Your task to perform on an android device: Open sound settings Image 0: 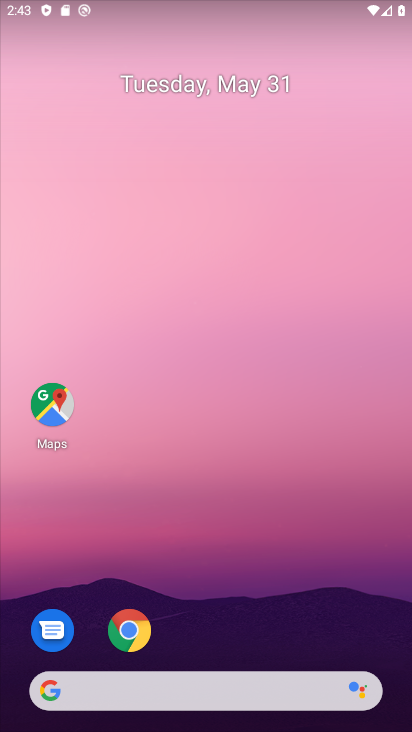
Step 0: drag from (238, 481) to (250, 182)
Your task to perform on an android device: Open sound settings Image 1: 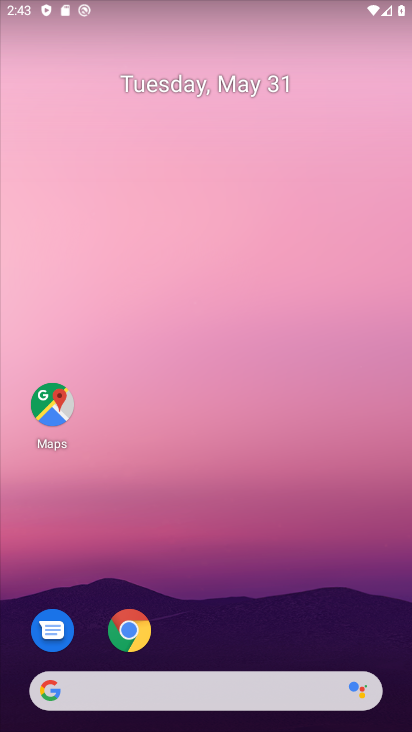
Step 1: drag from (223, 562) to (301, 33)
Your task to perform on an android device: Open sound settings Image 2: 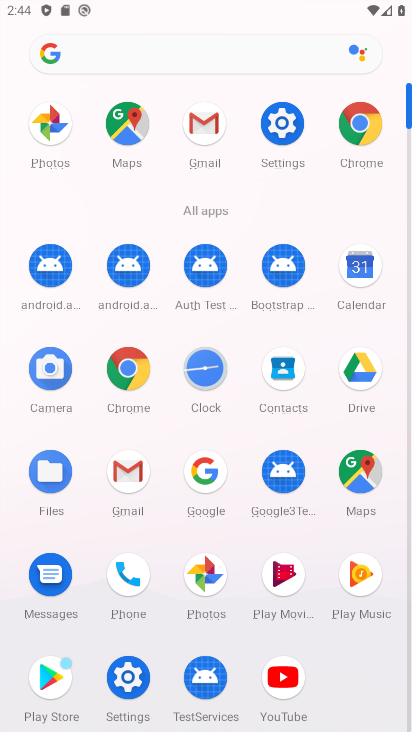
Step 2: click (287, 123)
Your task to perform on an android device: Open sound settings Image 3: 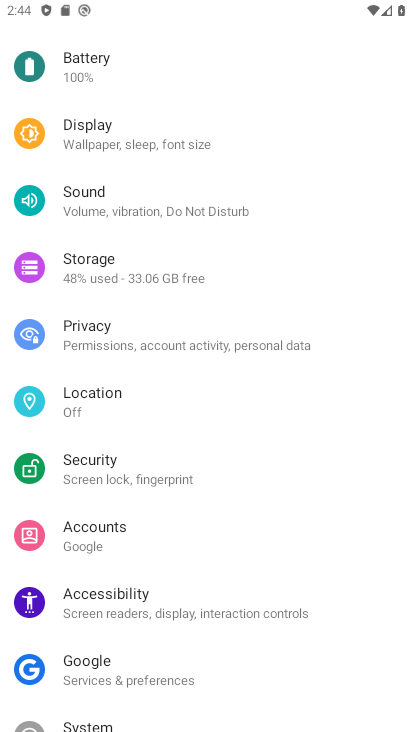
Step 3: click (100, 196)
Your task to perform on an android device: Open sound settings Image 4: 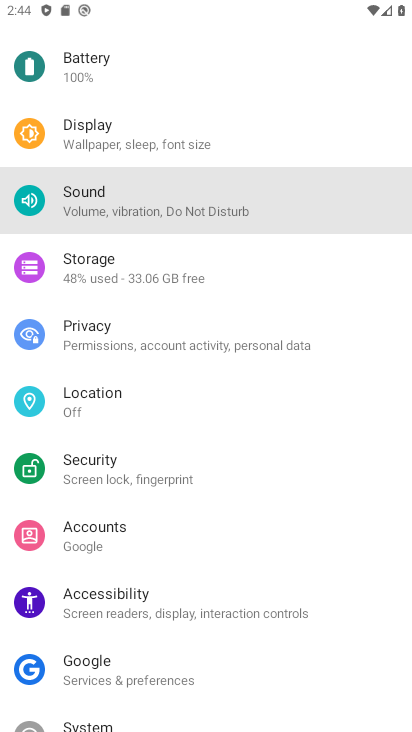
Step 4: click (100, 196)
Your task to perform on an android device: Open sound settings Image 5: 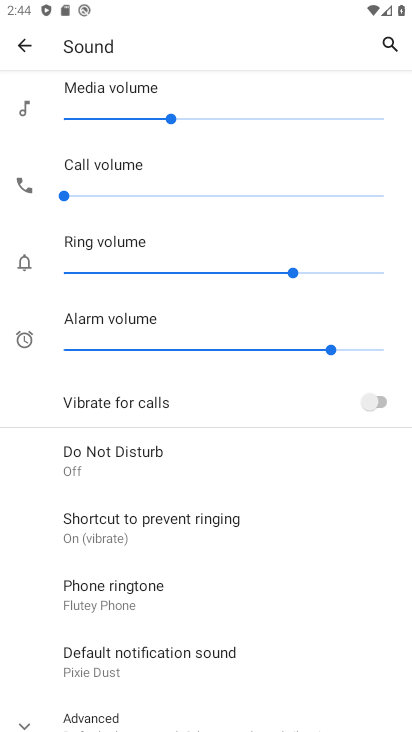
Step 5: click (102, 200)
Your task to perform on an android device: Open sound settings Image 6: 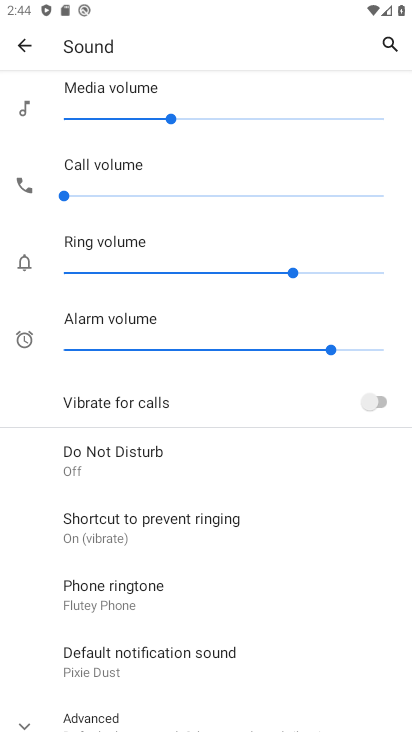
Step 6: task complete